Your task to perform on an android device: Open the map Image 0: 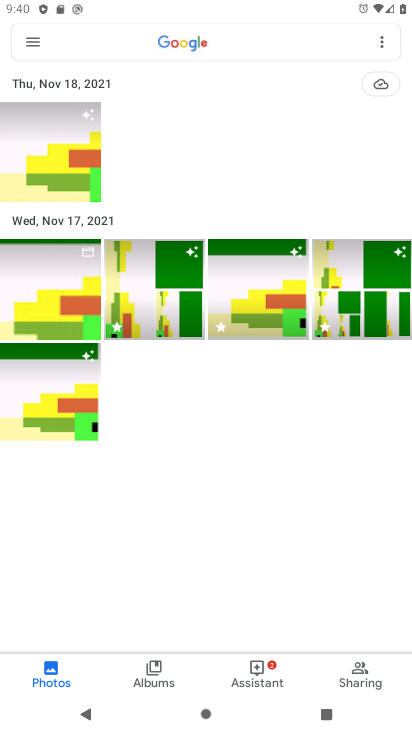
Step 0: press home button
Your task to perform on an android device: Open the map Image 1: 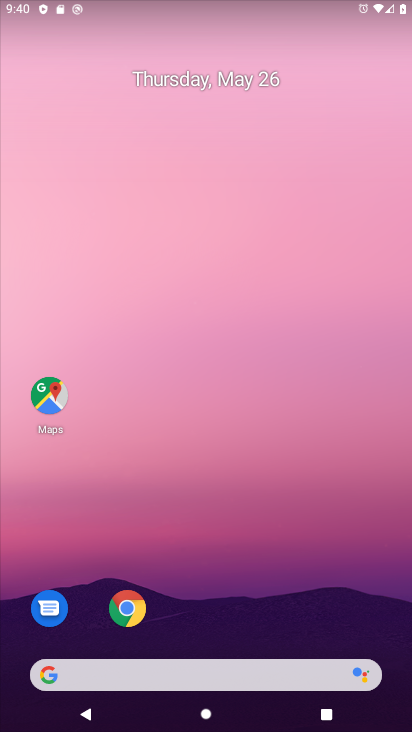
Step 1: click (53, 390)
Your task to perform on an android device: Open the map Image 2: 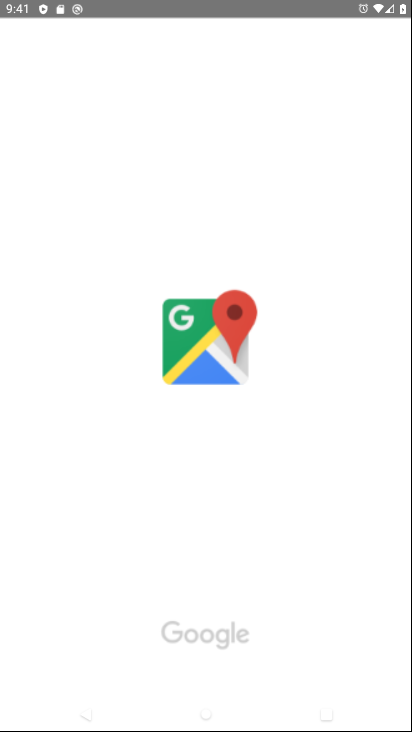
Step 2: task complete